Your task to perform on an android device: Go to Reddit.com Image 0: 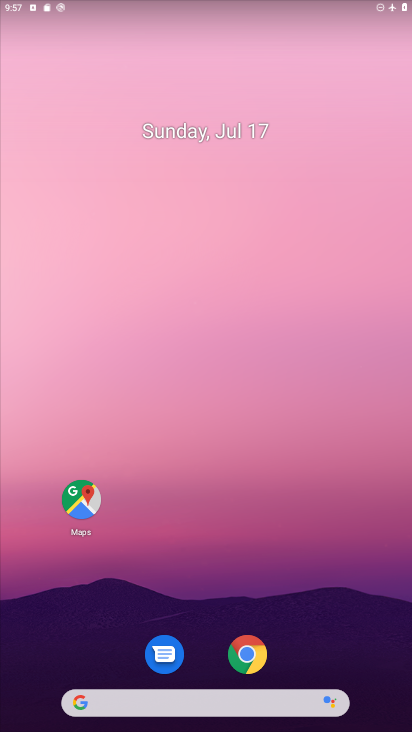
Step 0: click (251, 661)
Your task to perform on an android device: Go to Reddit.com Image 1: 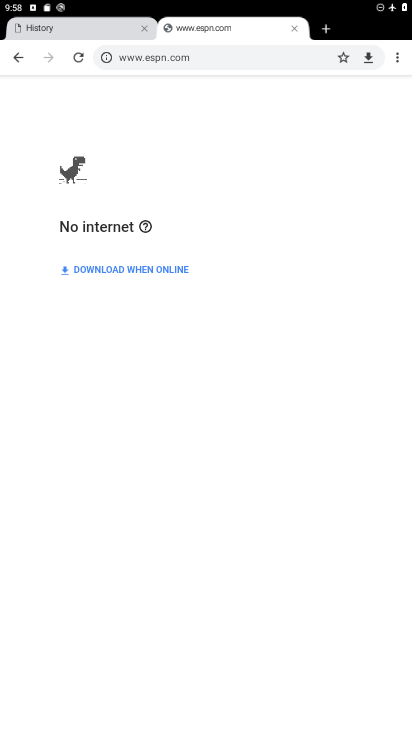
Step 1: click (332, 34)
Your task to perform on an android device: Go to Reddit.com Image 2: 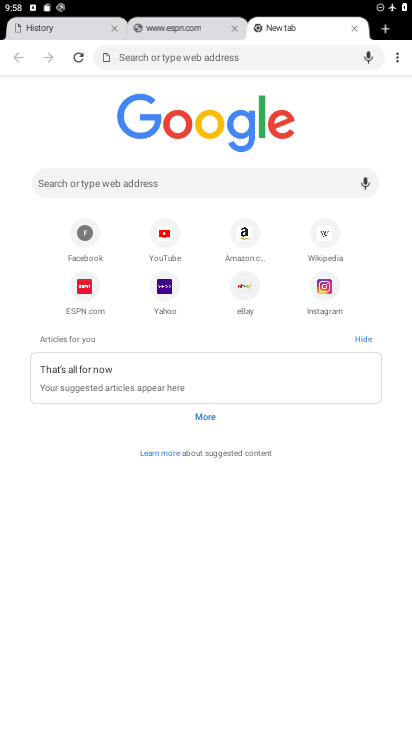
Step 2: click (137, 181)
Your task to perform on an android device: Go to Reddit.com Image 3: 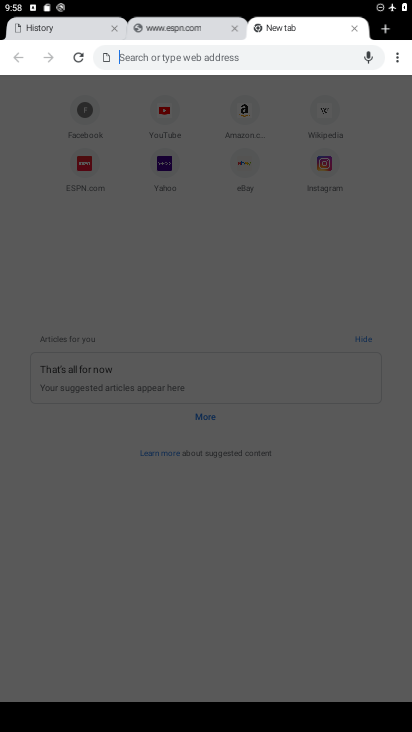
Step 3: type "Reddit.com"
Your task to perform on an android device: Go to Reddit.com Image 4: 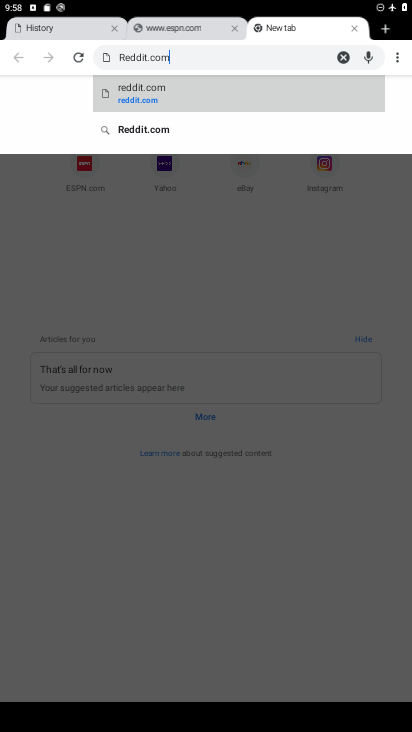
Step 4: click (131, 97)
Your task to perform on an android device: Go to Reddit.com Image 5: 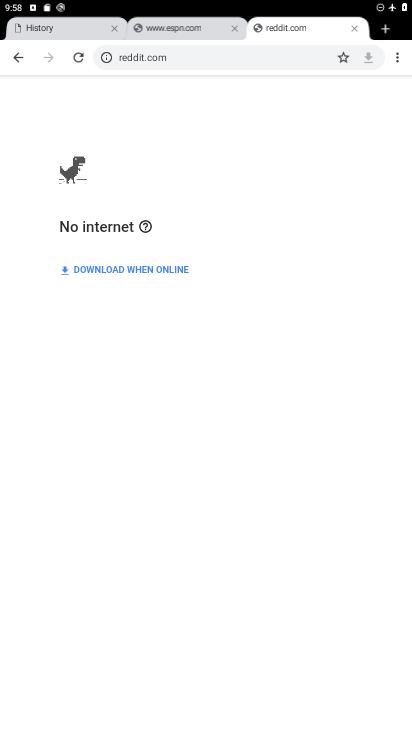
Step 5: task complete